Your task to perform on an android device: check google app version Image 0: 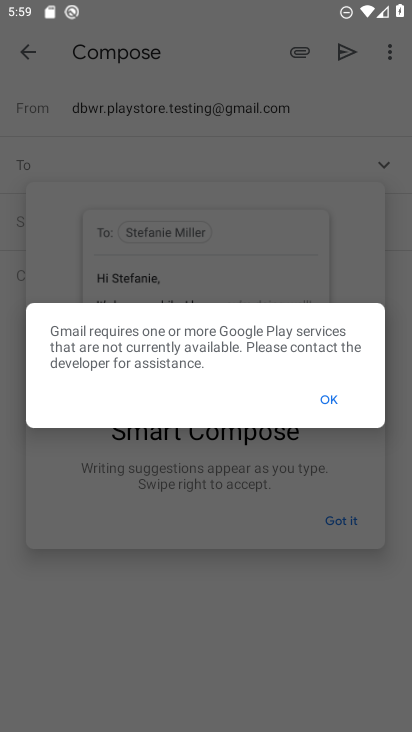
Step 0: press home button
Your task to perform on an android device: check google app version Image 1: 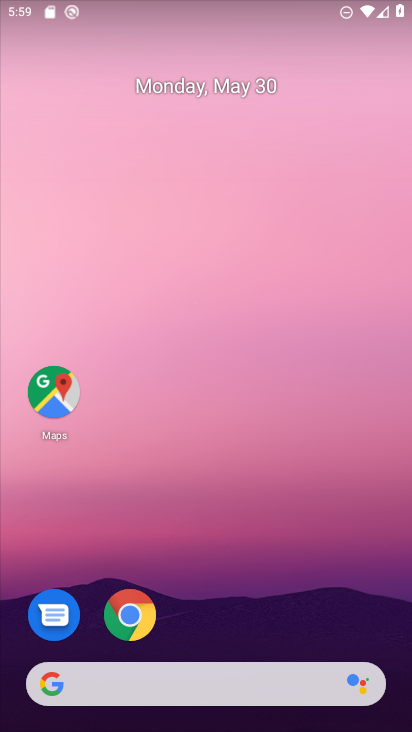
Step 1: click (235, 680)
Your task to perform on an android device: check google app version Image 2: 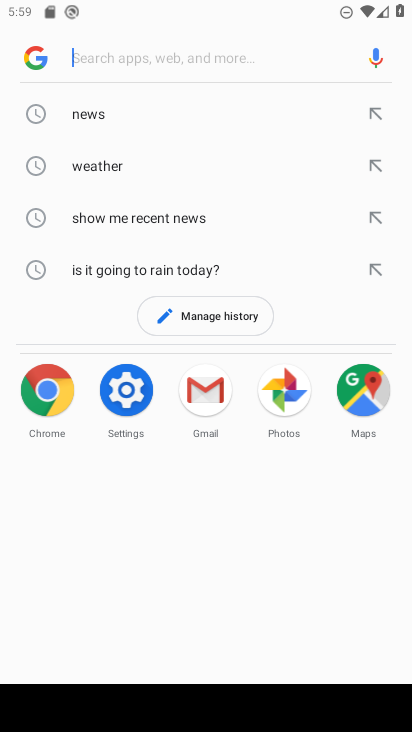
Step 2: click (33, 65)
Your task to perform on an android device: check google app version Image 3: 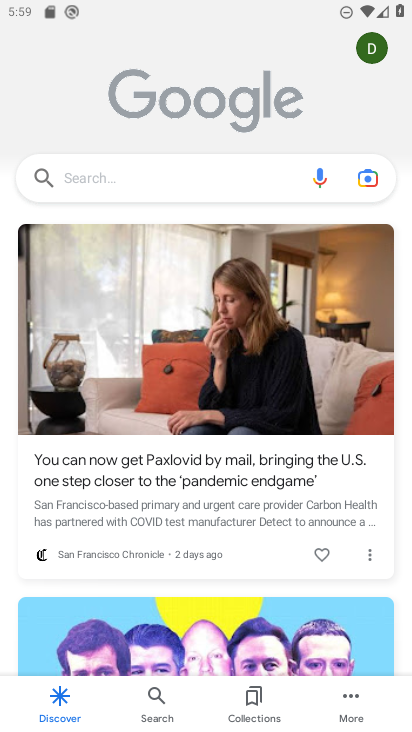
Step 3: click (369, 706)
Your task to perform on an android device: check google app version Image 4: 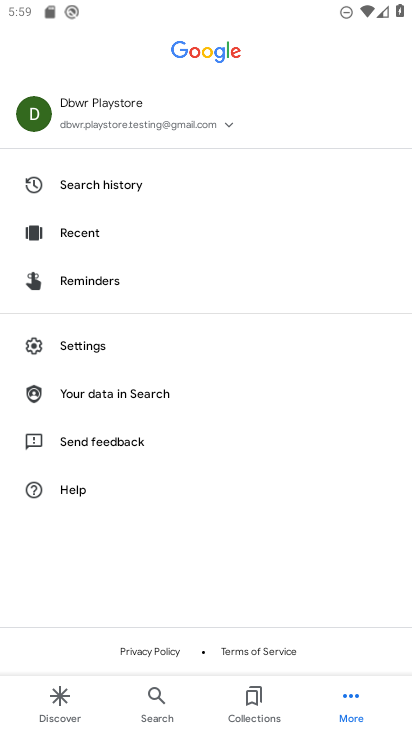
Step 4: click (63, 343)
Your task to perform on an android device: check google app version Image 5: 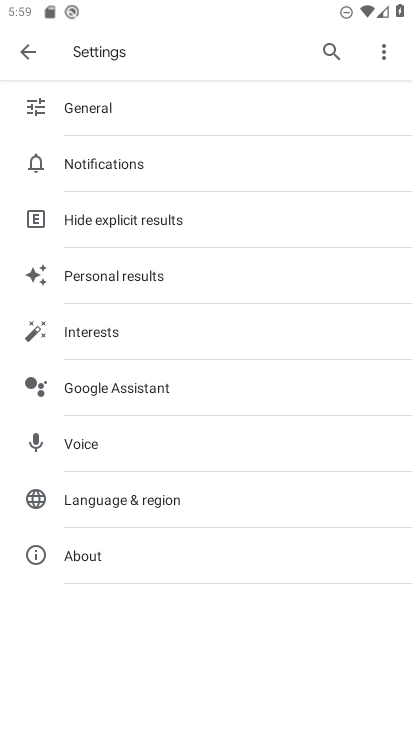
Step 5: click (72, 570)
Your task to perform on an android device: check google app version Image 6: 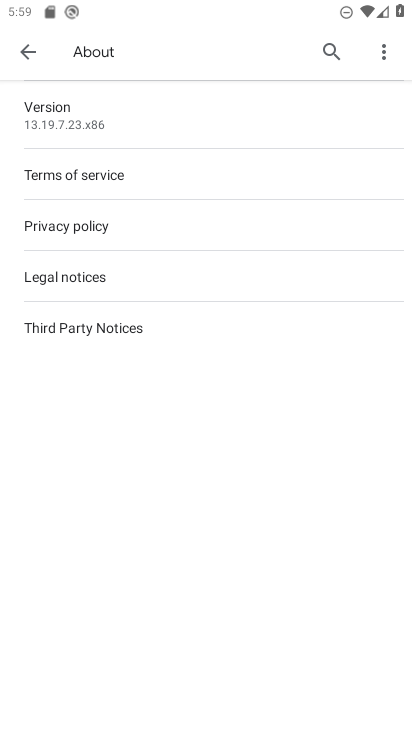
Step 6: task complete